Your task to perform on an android device: When is my next meeting? Image 0: 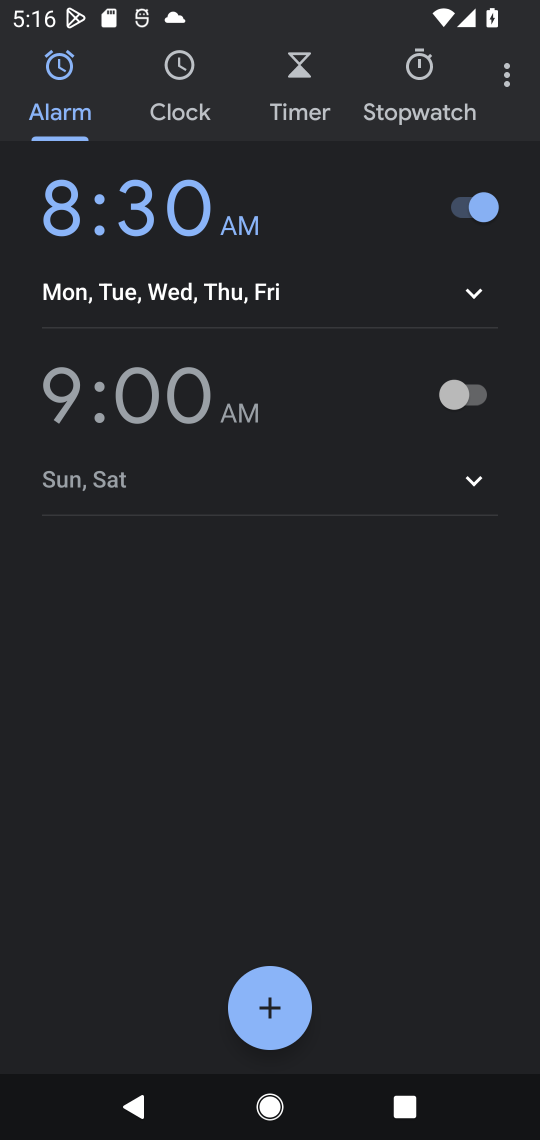
Step 0: press home button
Your task to perform on an android device: When is my next meeting? Image 1: 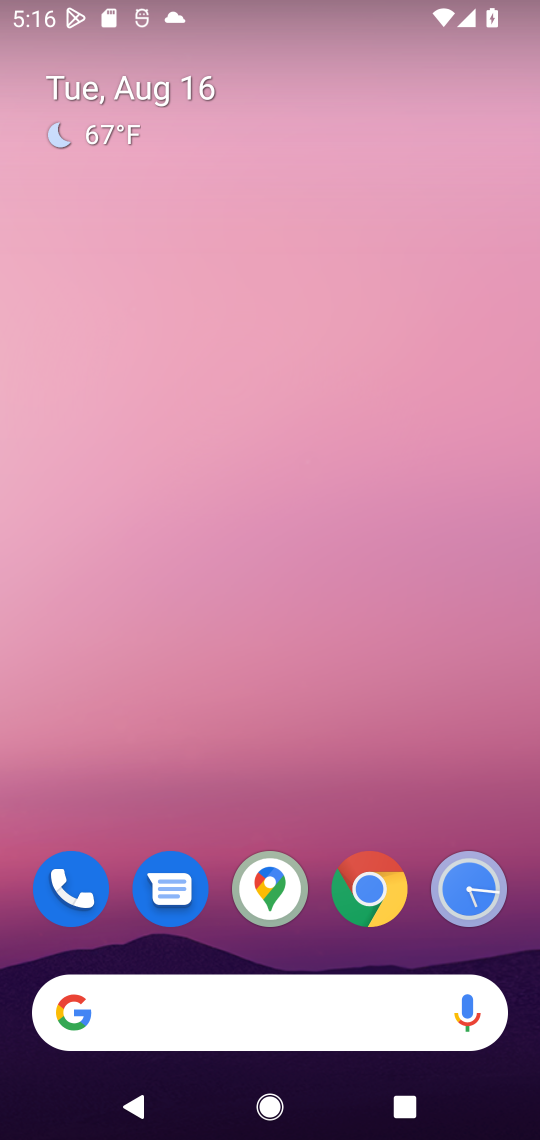
Step 1: drag from (329, 800) to (440, 334)
Your task to perform on an android device: When is my next meeting? Image 2: 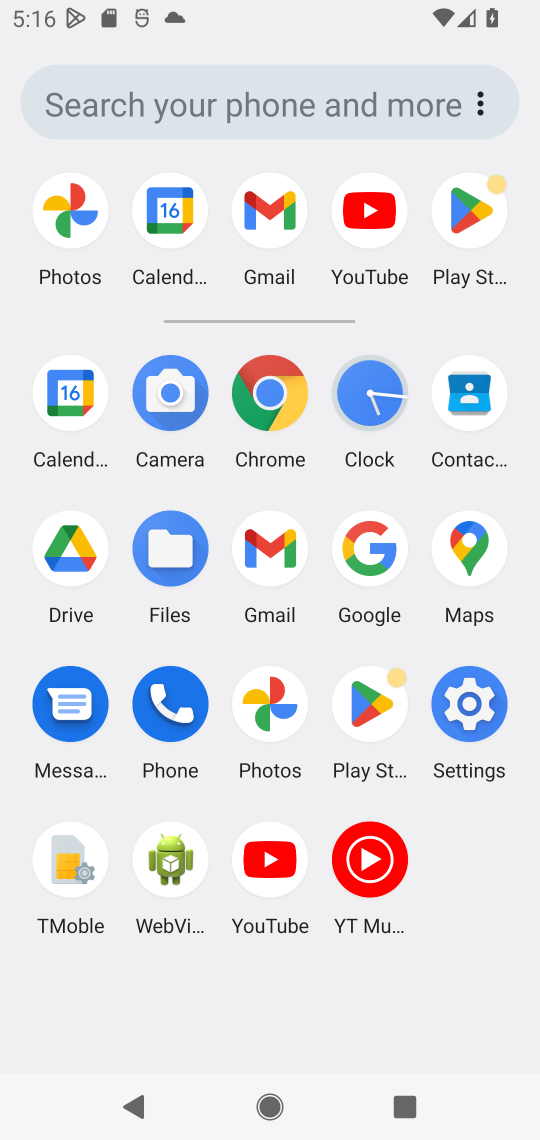
Step 2: click (63, 427)
Your task to perform on an android device: When is my next meeting? Image 3: 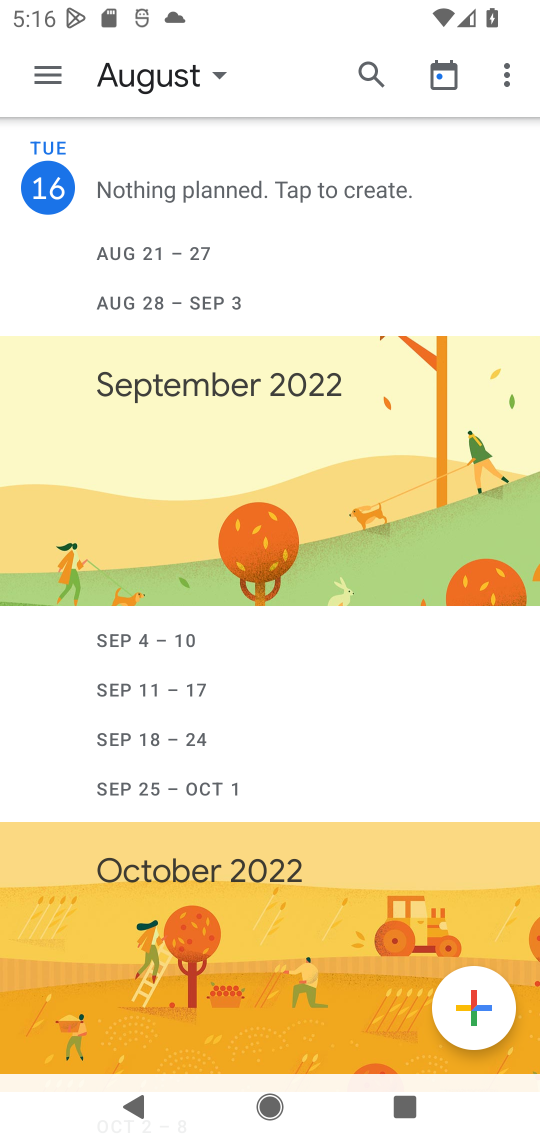
Step 3: task complete